Your task to perform on an android device: Open calendar and show me the fourth week of next month Image 0: 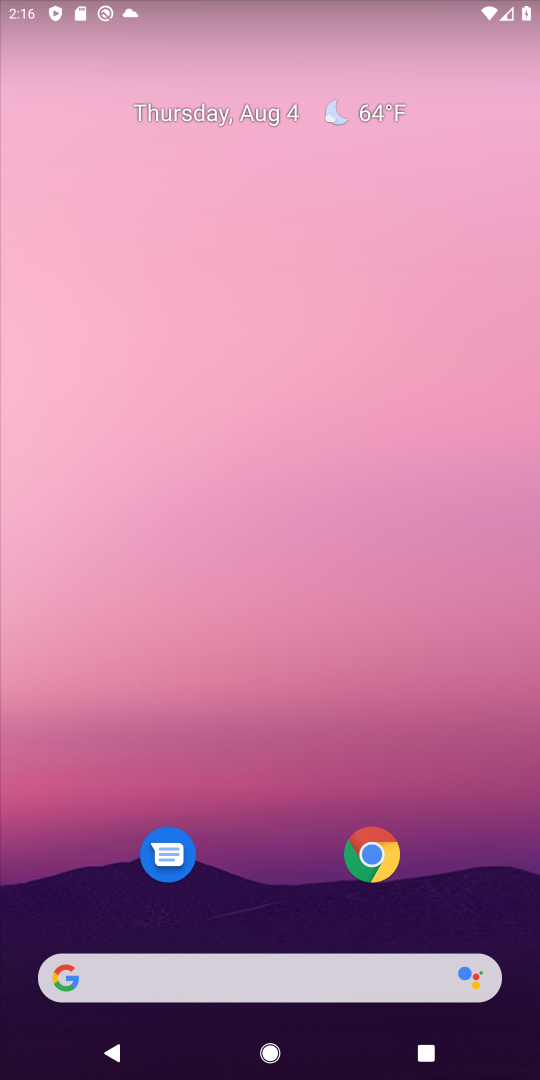
Step 0: drag from (268, 829) to (327, 576)
Your task to perform on an android device: Open calendar and show me the fourth week of next month Image 1: 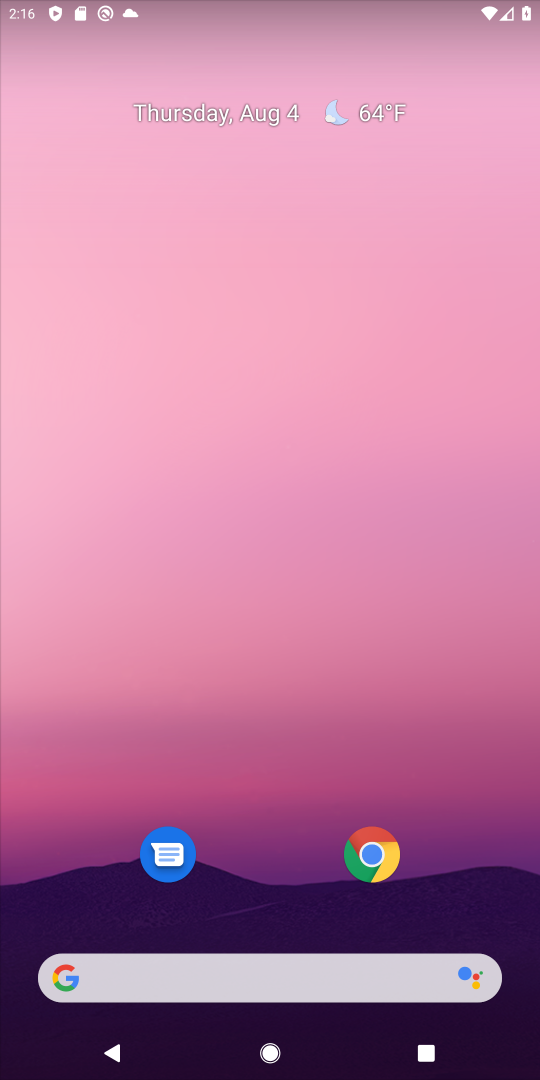
Step 1: drag from (239, 811) to (299, 404)
Your task to perform on an android device: Open calendar and show me the fourth week of next month Image 2: 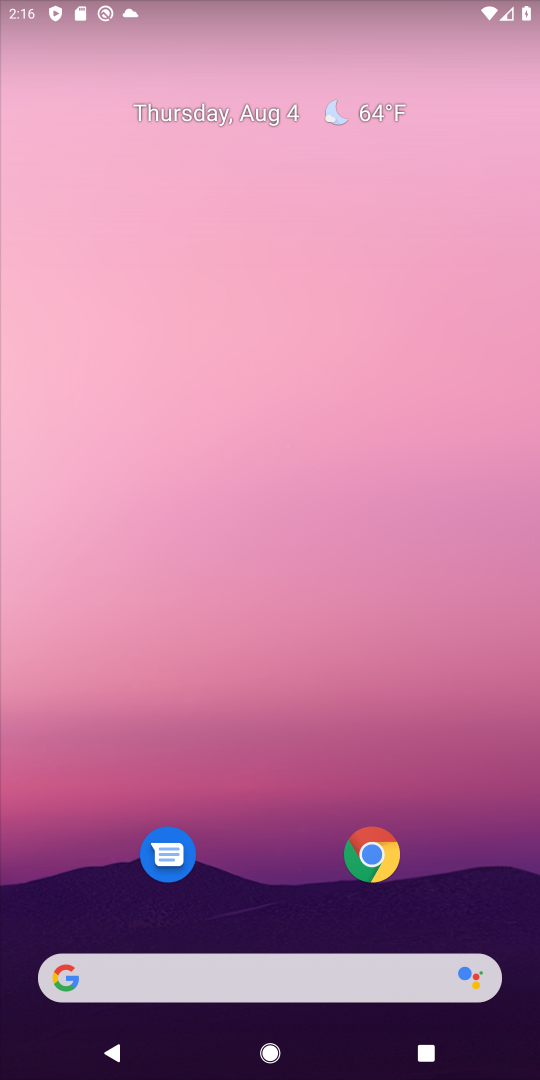
Step 2: drag from (269, 829) to (330, 246)
Your task to perform on an android device: Open calendar and show me the fourth week of next month Image 3: 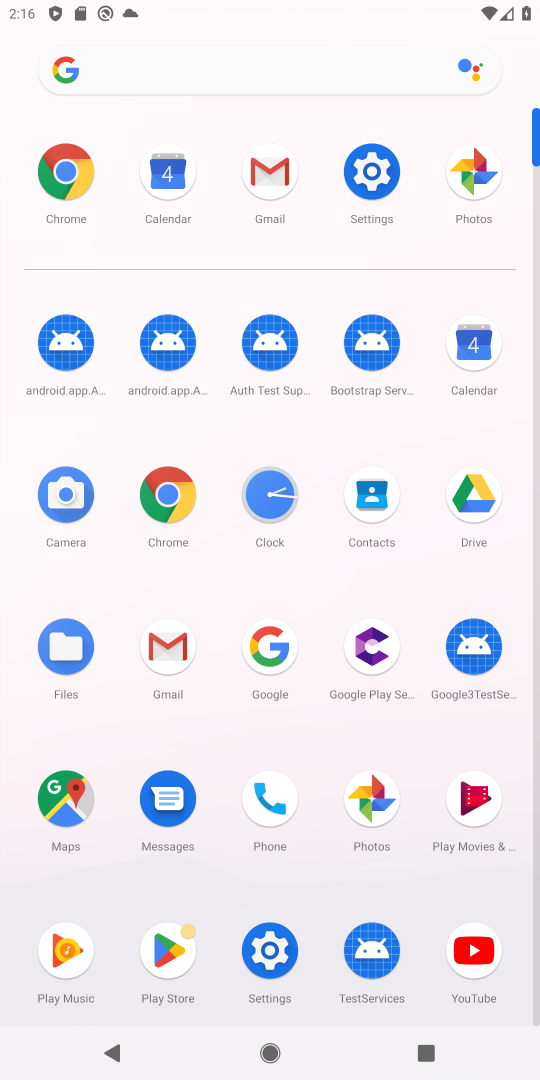
Step 3: click (471, 356)
Your task to perform on an android device: Open calendar and show me the fourth week of next month Image 4: 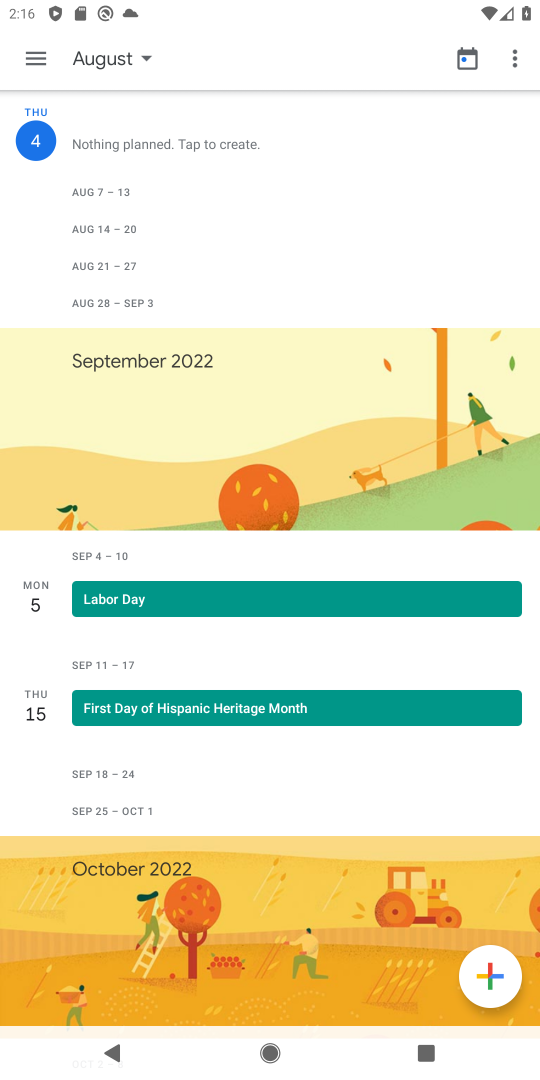
Step 4: task complete